Your task to perform on an android device: snooze an email in the gmail app Image 0: 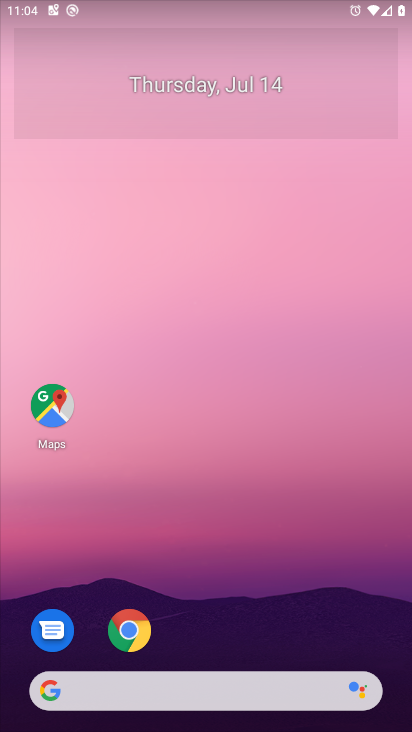
Step 0: drag from (22, 662) to (212, 73)
Your task to perform on an android device: snooze an email in the gmail app Image 1: 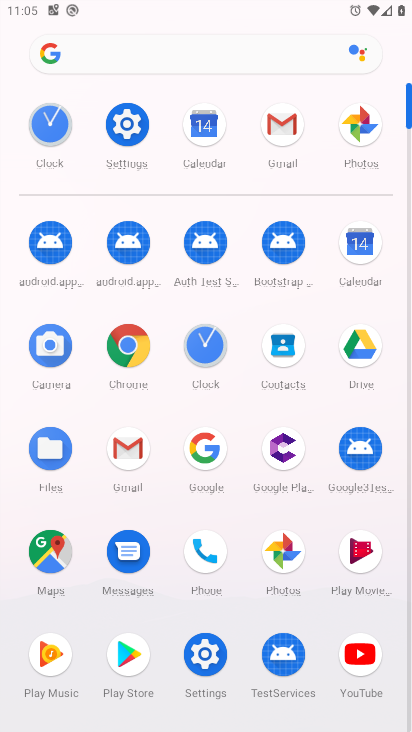
Step 1: click (130, 457)
Your task to perform on an android device: snooze an email in the gmail app Image 2: 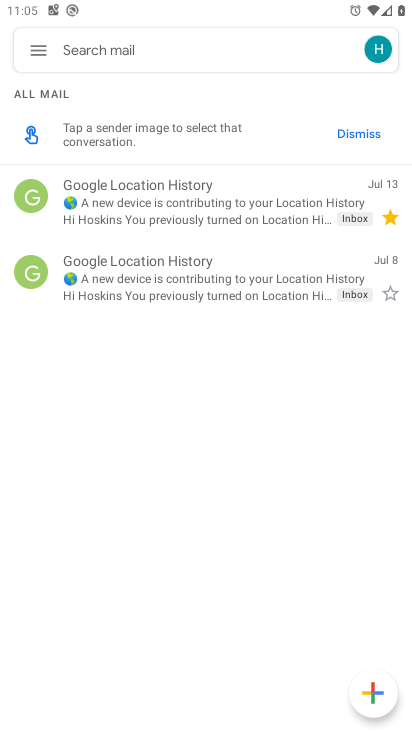
Step 2: click (51, 114)
Your task to perform on an android device: snooze an email in the gmail app Image 3: 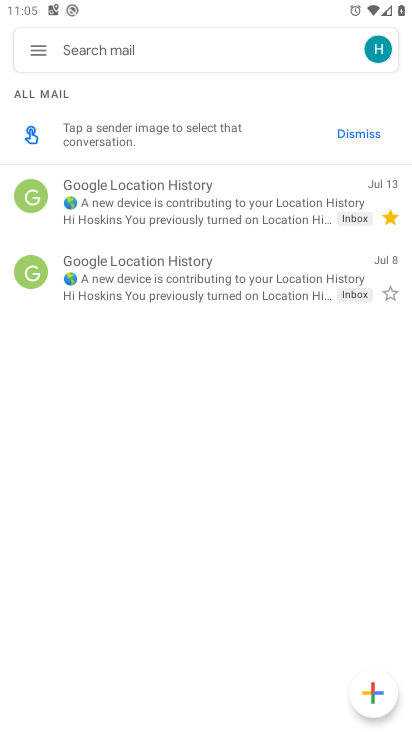
Step 3: click (42, 49)
Your task to perform on an android device: snooze an email in the gmail app Image 4: 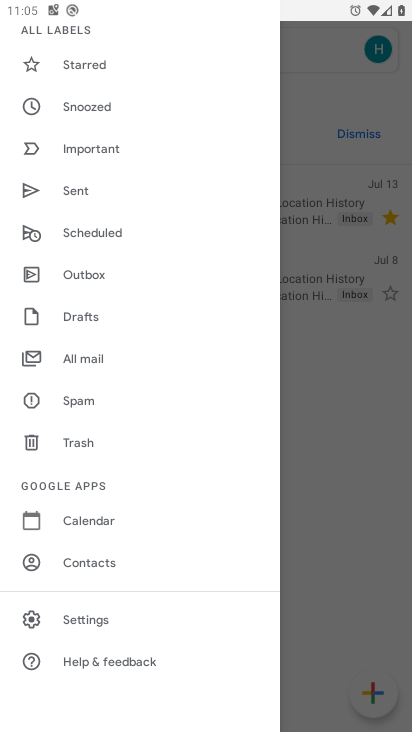
Step 4: click (104, 115)
Your task to perform on an android device: snooze an email in the gmail app Image 5: 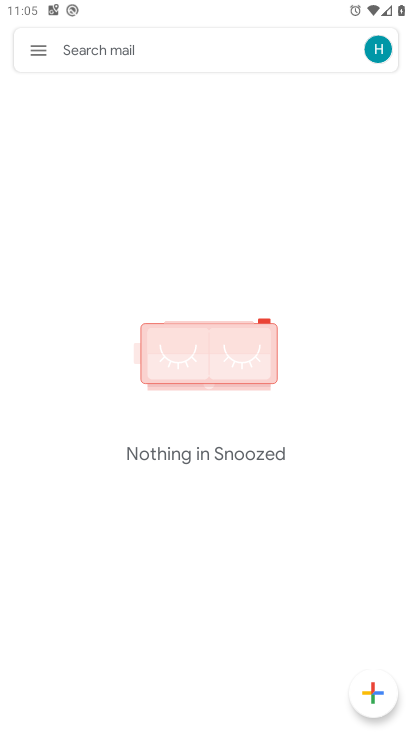
Step 5: task complete